Your task to perform on an android device: Clear the shopping cart on bestbuy. Image 0: 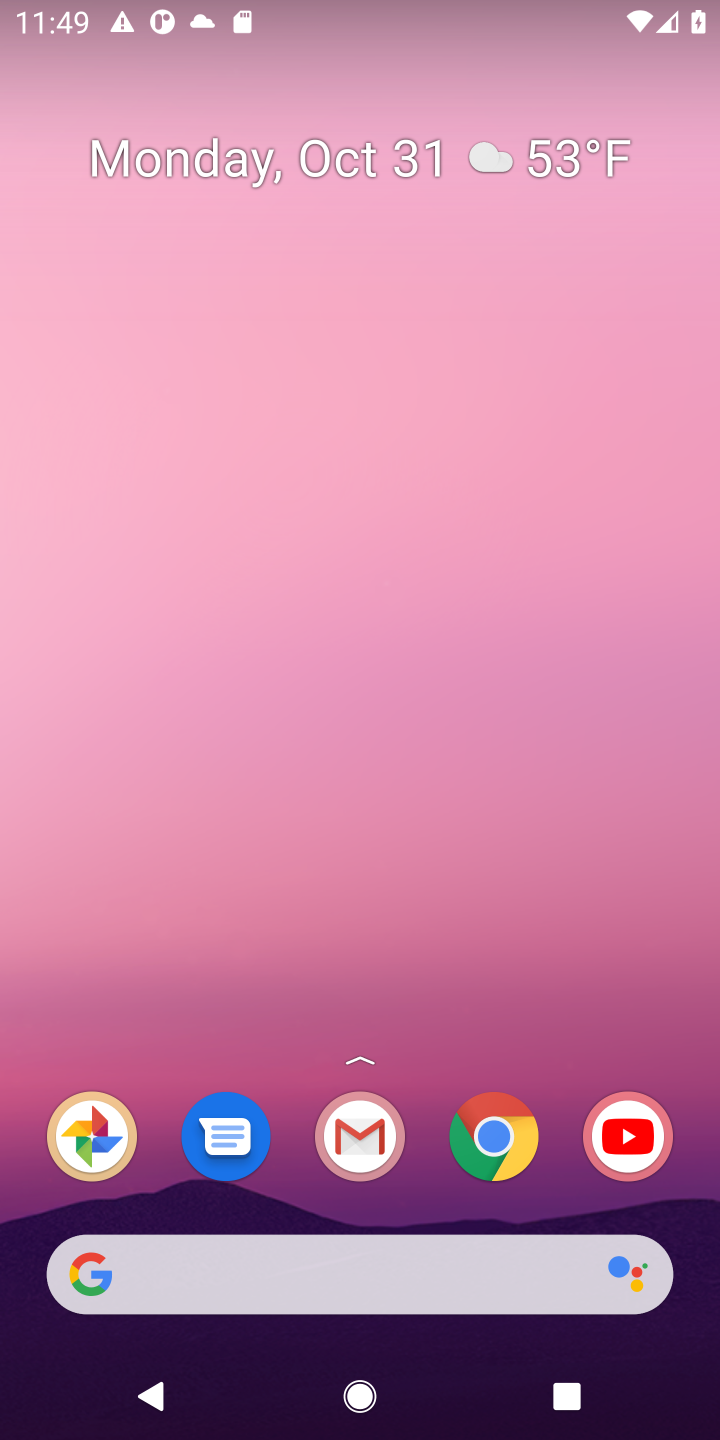
Step 0: press home button
Your task to perform on an android device: Clear the shopping cart on bestbuy. Image 1: 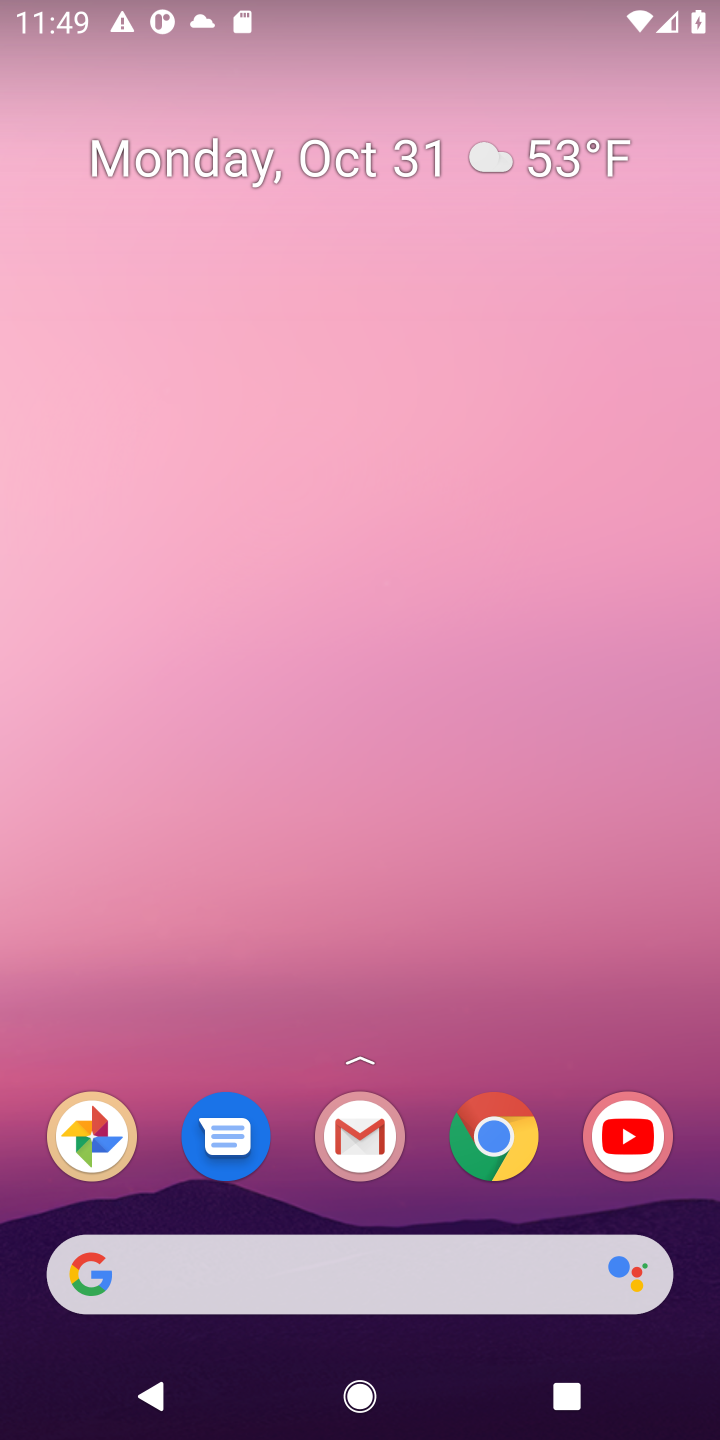
Step 1: click (128, 1264)
Your task to perform on an android device: Clear the shopping cart on bestbuy. Image 2: 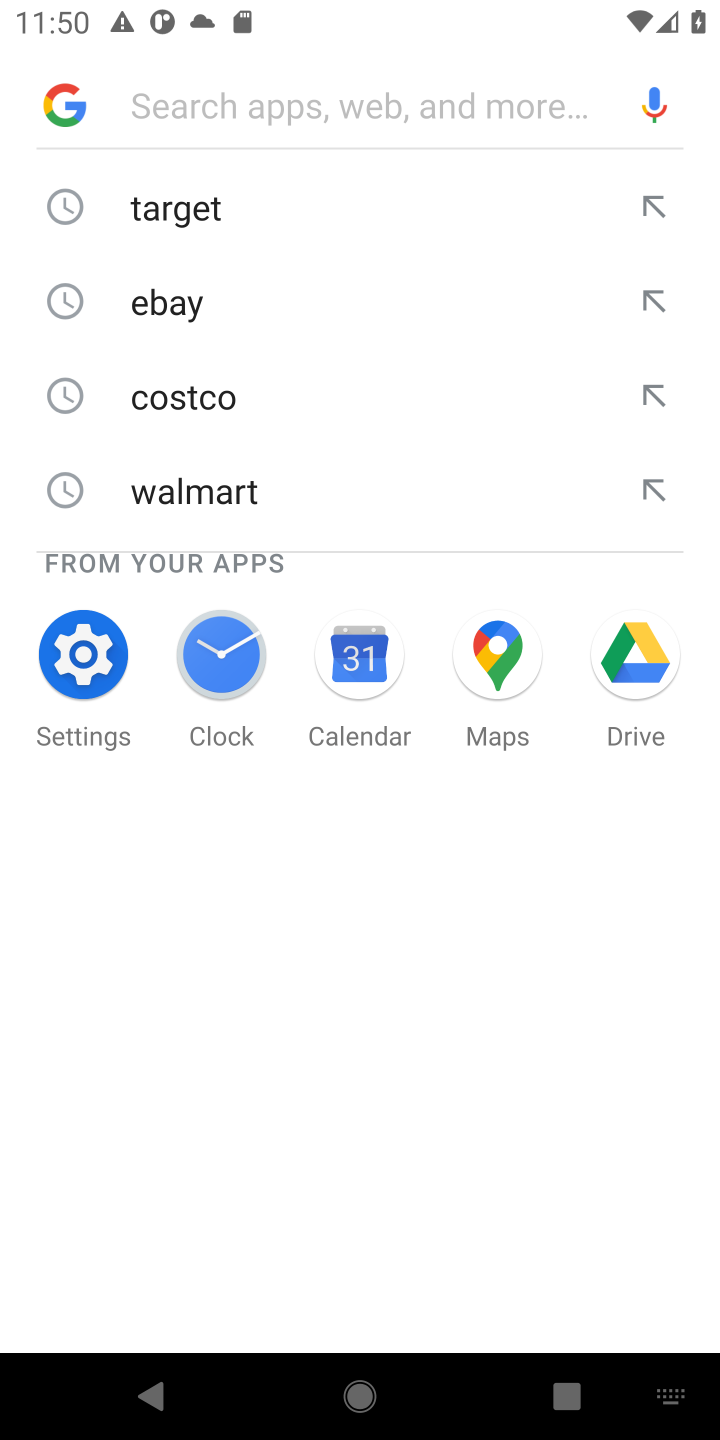
Step 2: type "bestbuy"
Your task to perform on an android device: Clear the shopping cart on bestbuy. Image 3: 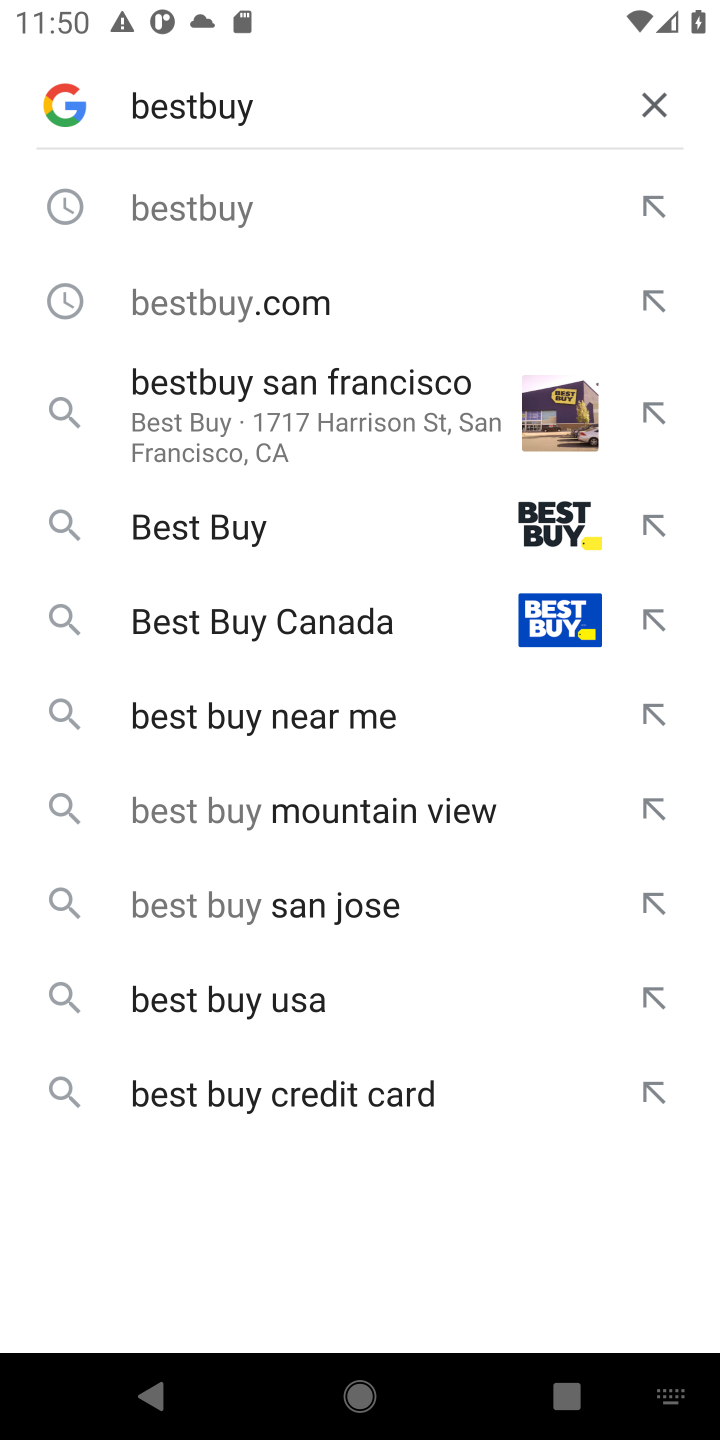
Step 3: press enter
Your task to perform on an android device: Clear the shopping cart on bestbuy. Image 4: 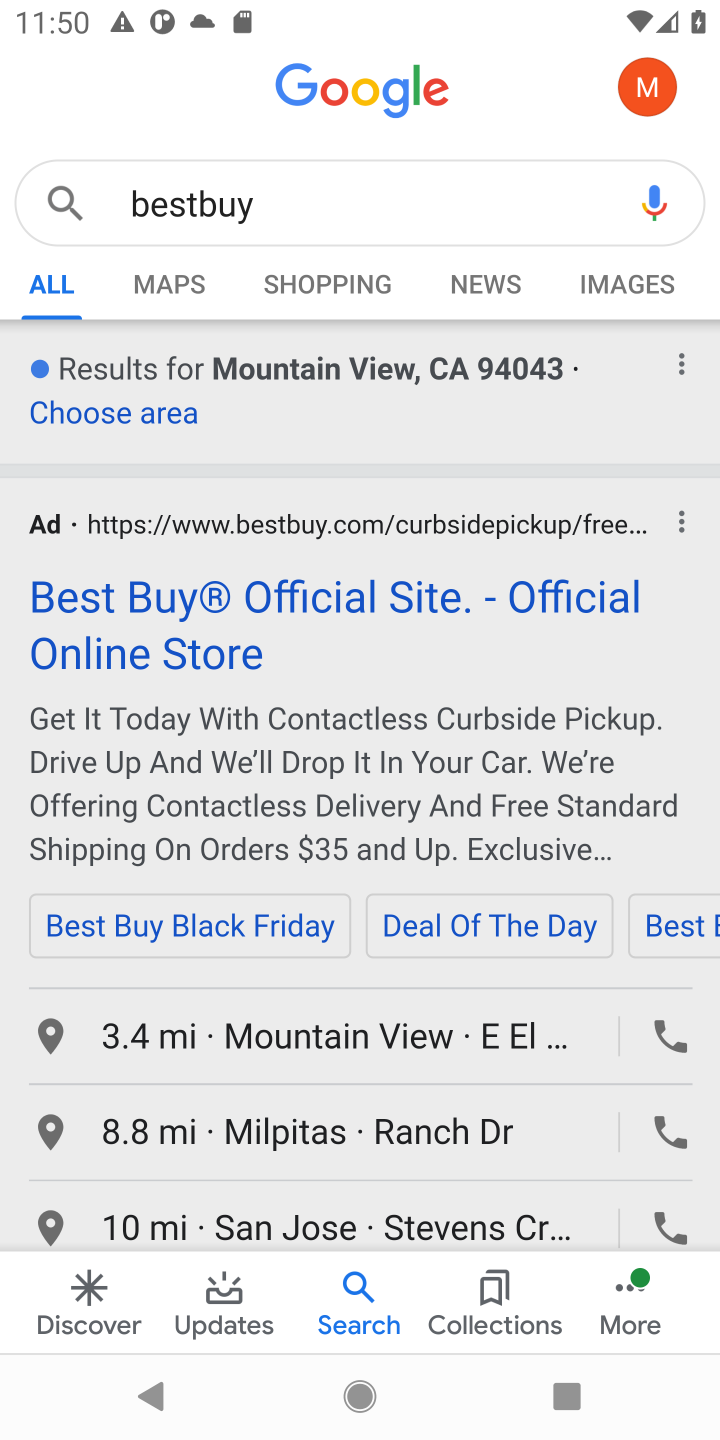
Step 4: drag from (302, 1052) to (322, 695)
Your task to perform on an android device: Clear the shopping cart on bestbuy. Image 5: 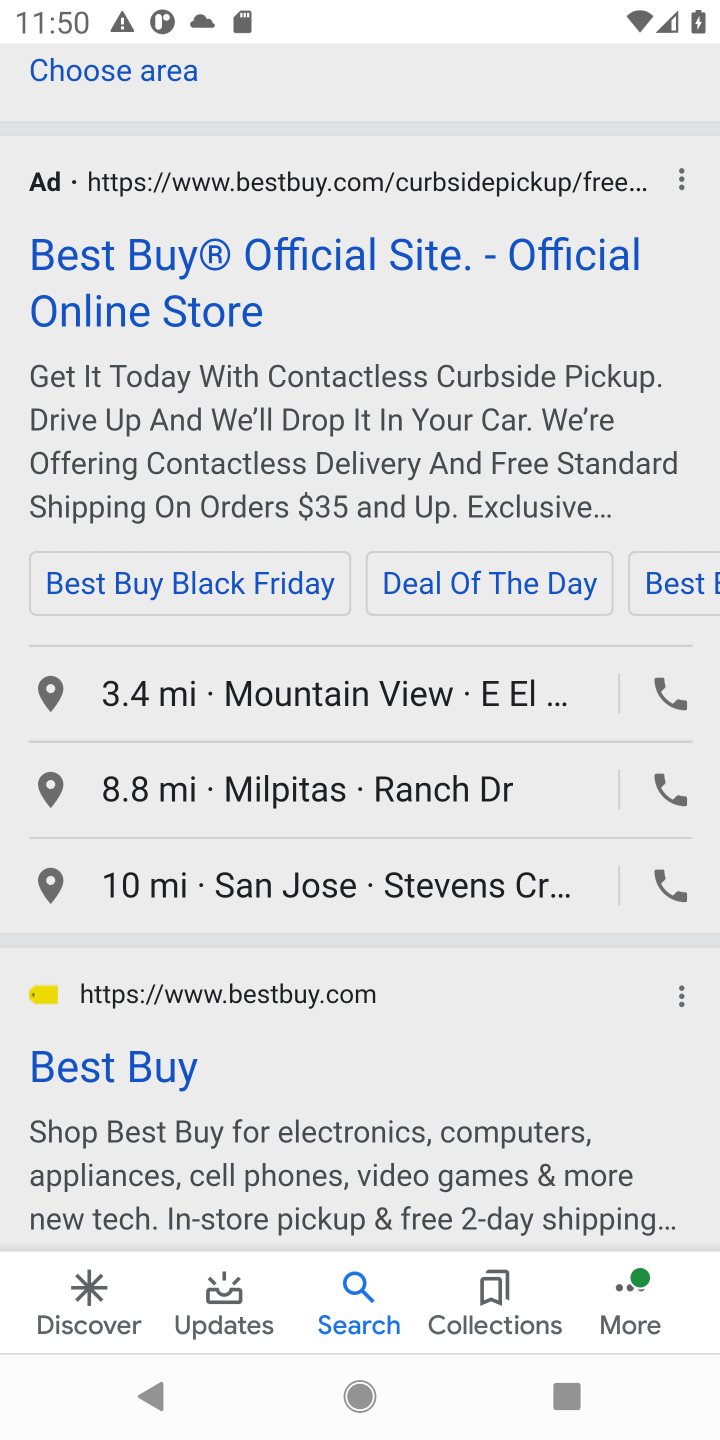
Step 5: click (200, 292)
Your task to perform on an android device: Clear the shopping cart on bestbuy. Image 6: 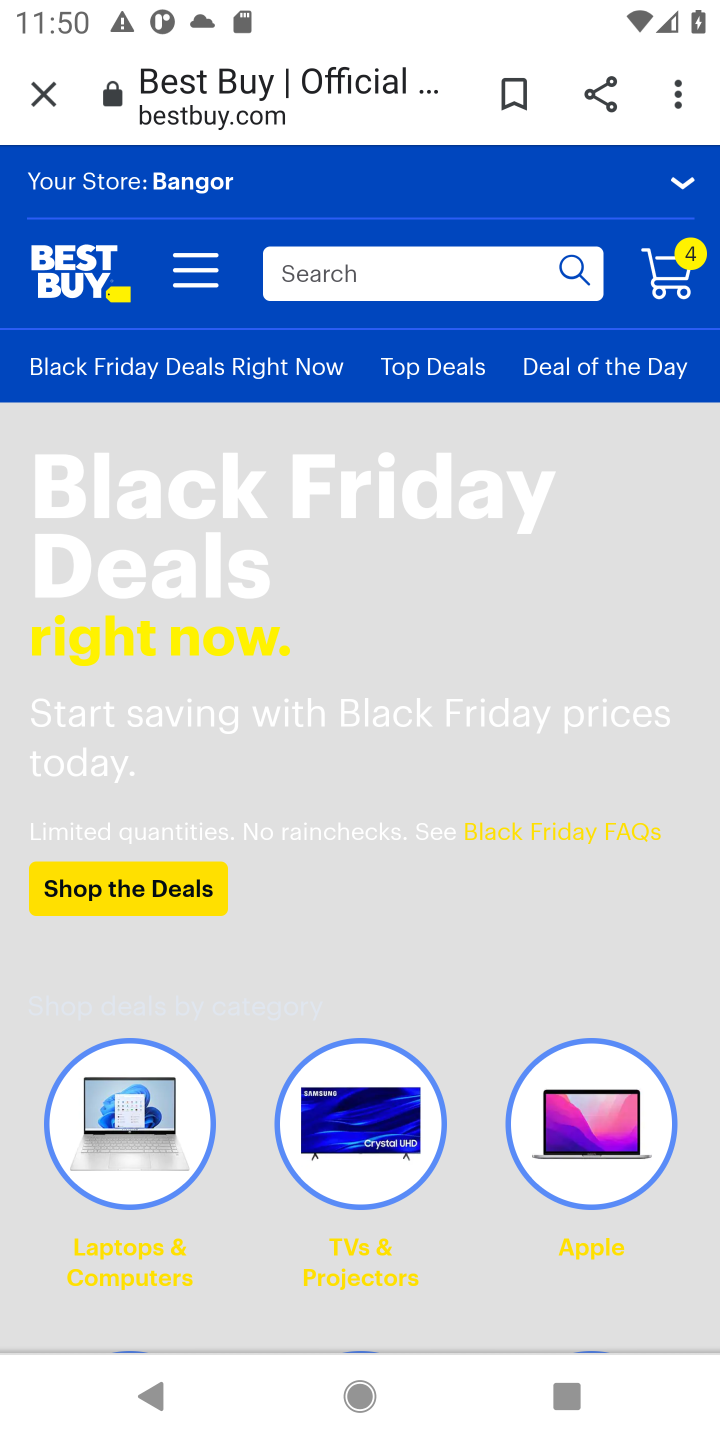
Step 6: click (665, 264)
Your task to perform on an android device: Clear the shopping cart on bestbuy. Image 7: 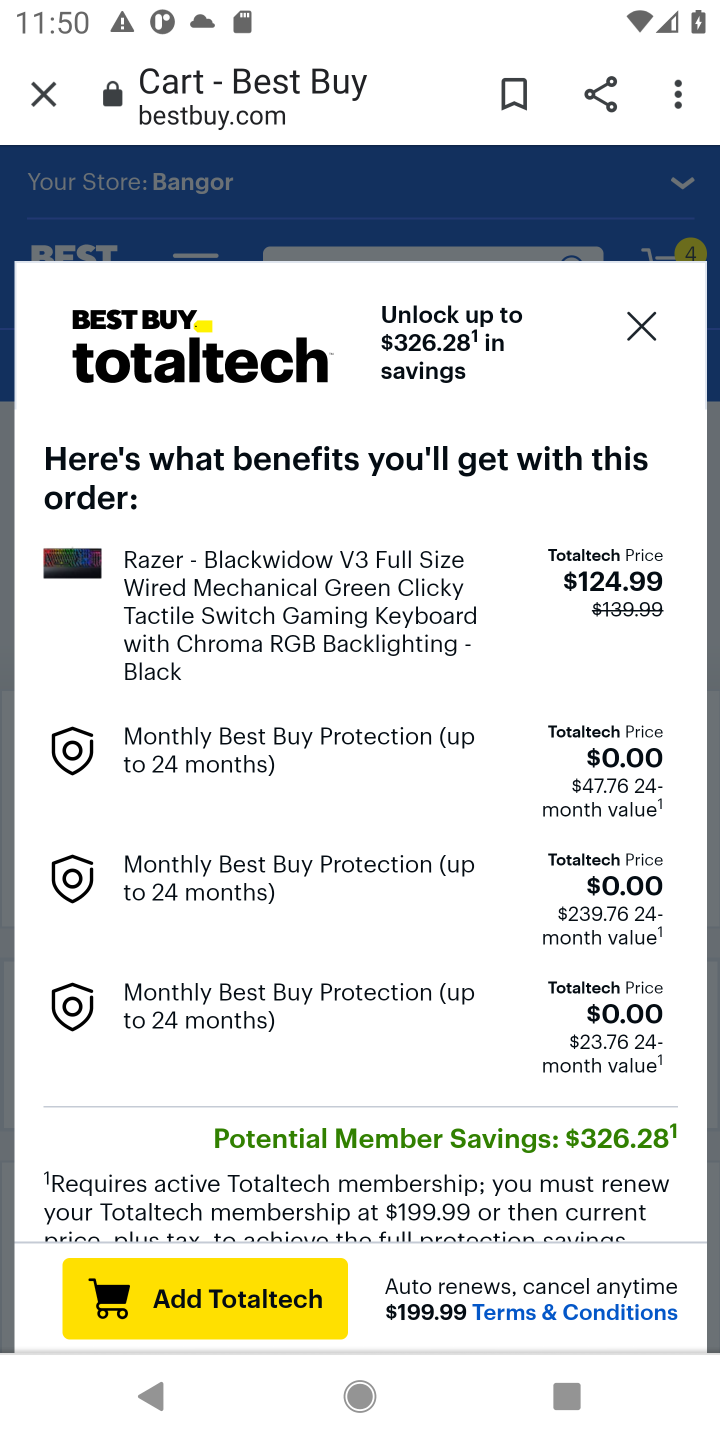
Step 7: click (647, 327)
Your task to perform on an android device: Clear the shopping cart on bestbuy. Image 8: 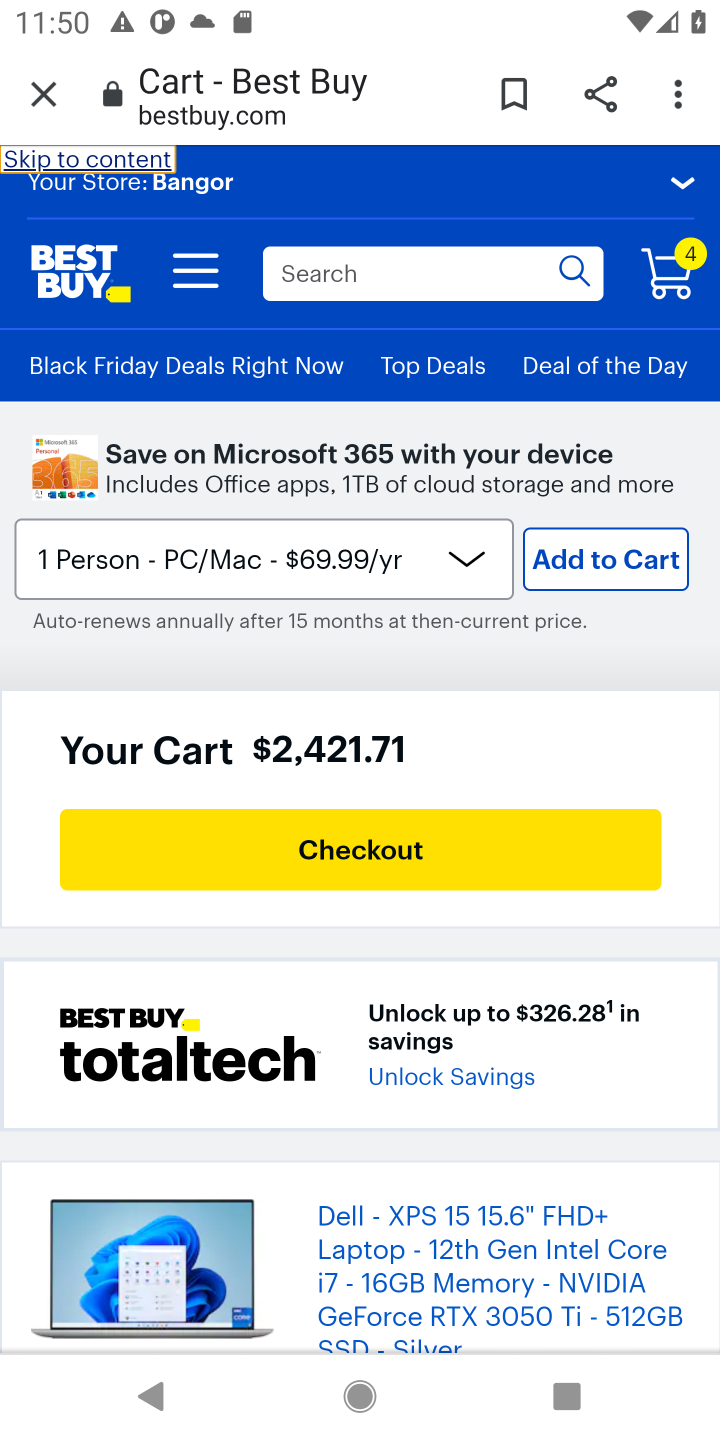
Step 8: drag from (413, 1087) to (483, 369)
Your task to perform on an android device: Clear the shopping cart on bestbuy. Image 9: 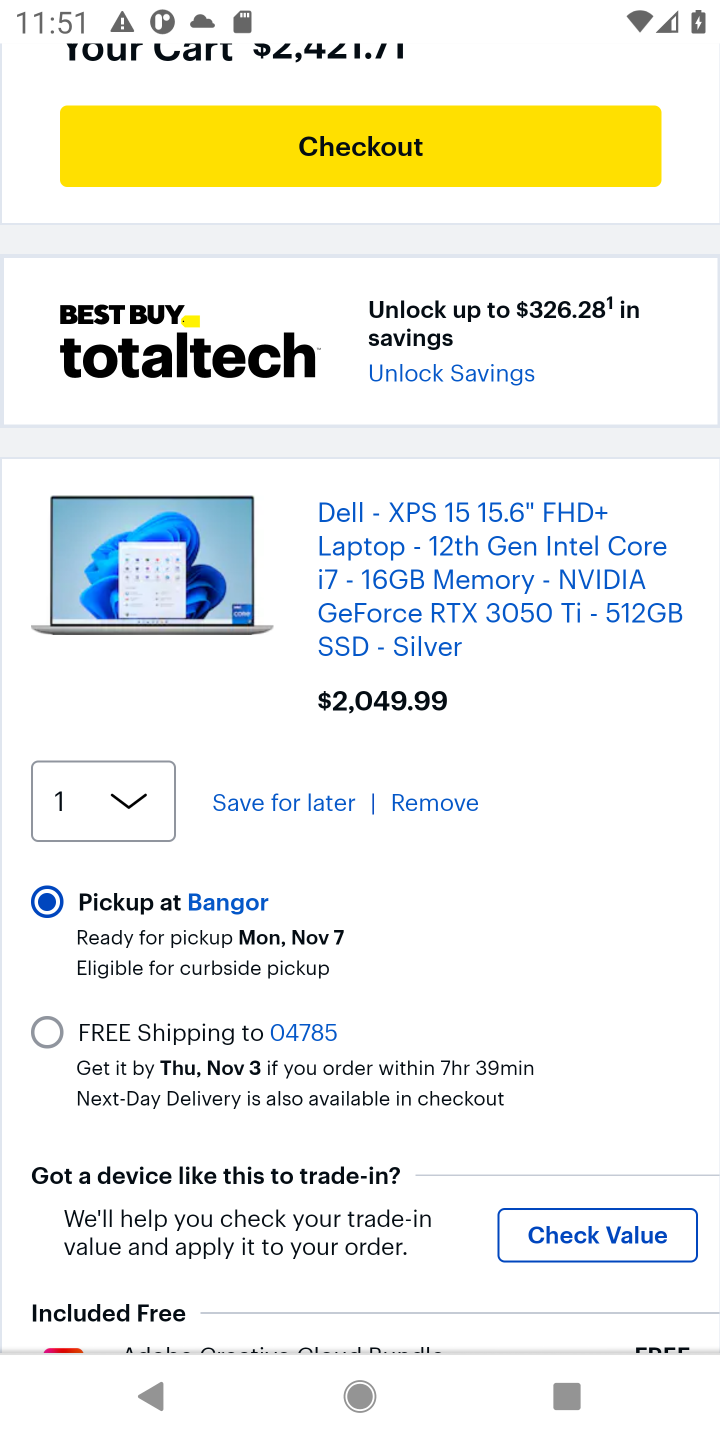
Step 9: click (433, 797)
Your task to perform on an android device: Clear the shopping cart on bestbuy. Image 10: 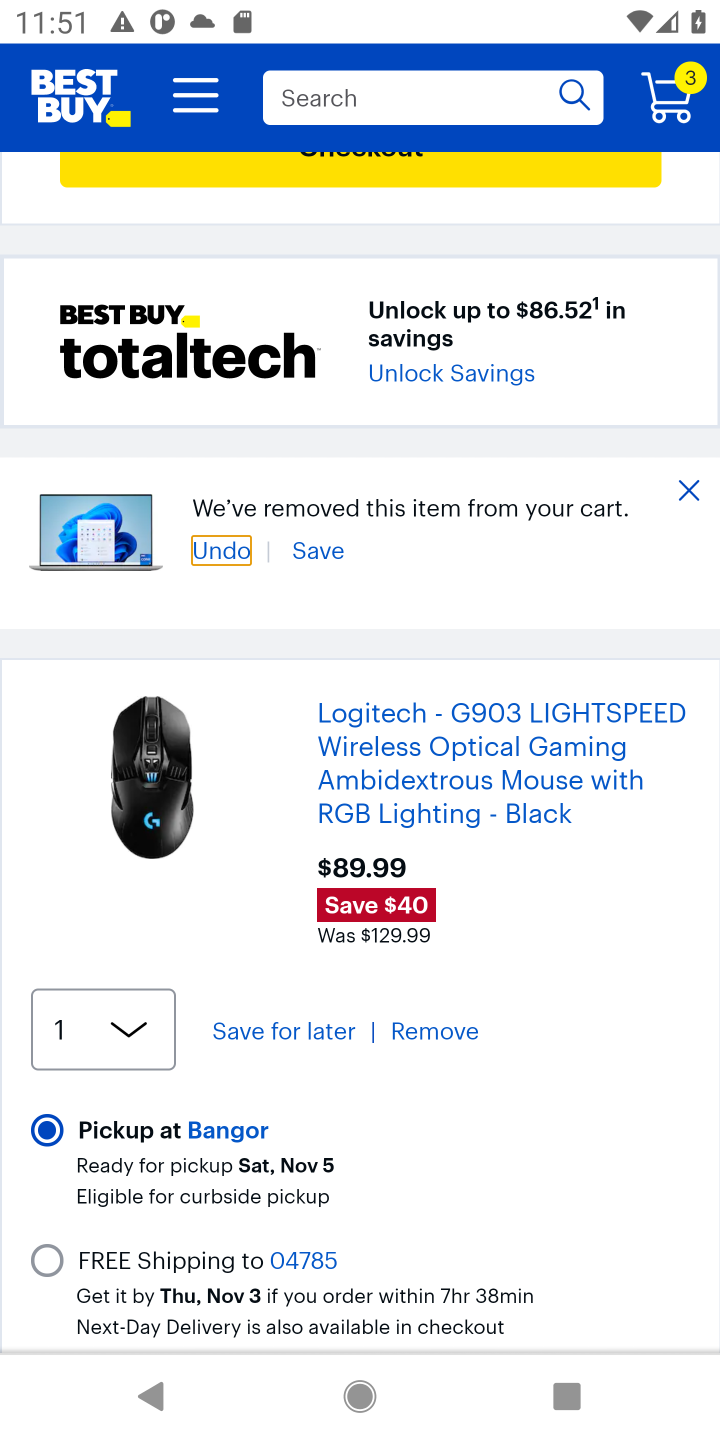
Step 10: click (423, 1036)
Your task to perform on an android device: Clear the shopping cart on bestbuy. Image 11: 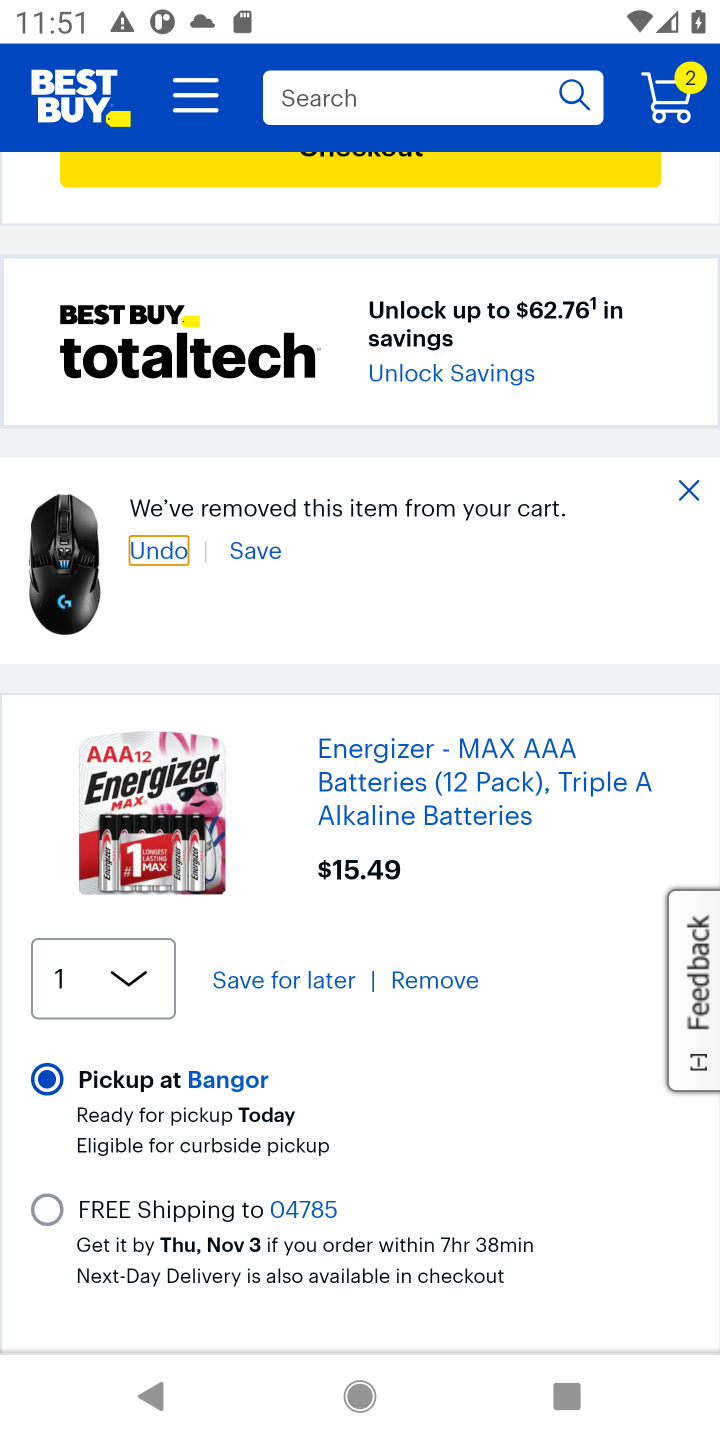
Step 11: click (436, 994)
Your task to perform on an android device: Clear the shopping cart on bestbuy. Image 12: 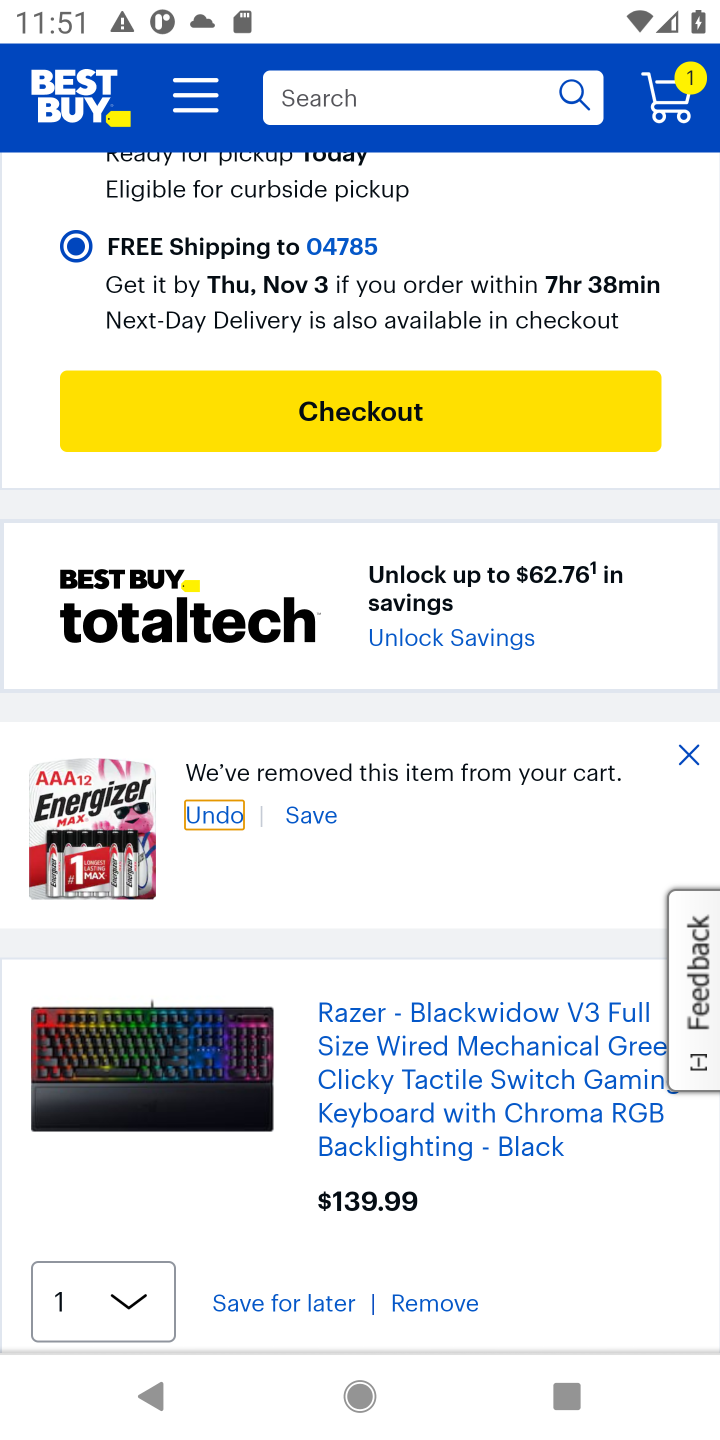
Step 12: click (434, 1305)
Your task to perform on an android device: Clear the shopping cart on bestbuy. Image 13: 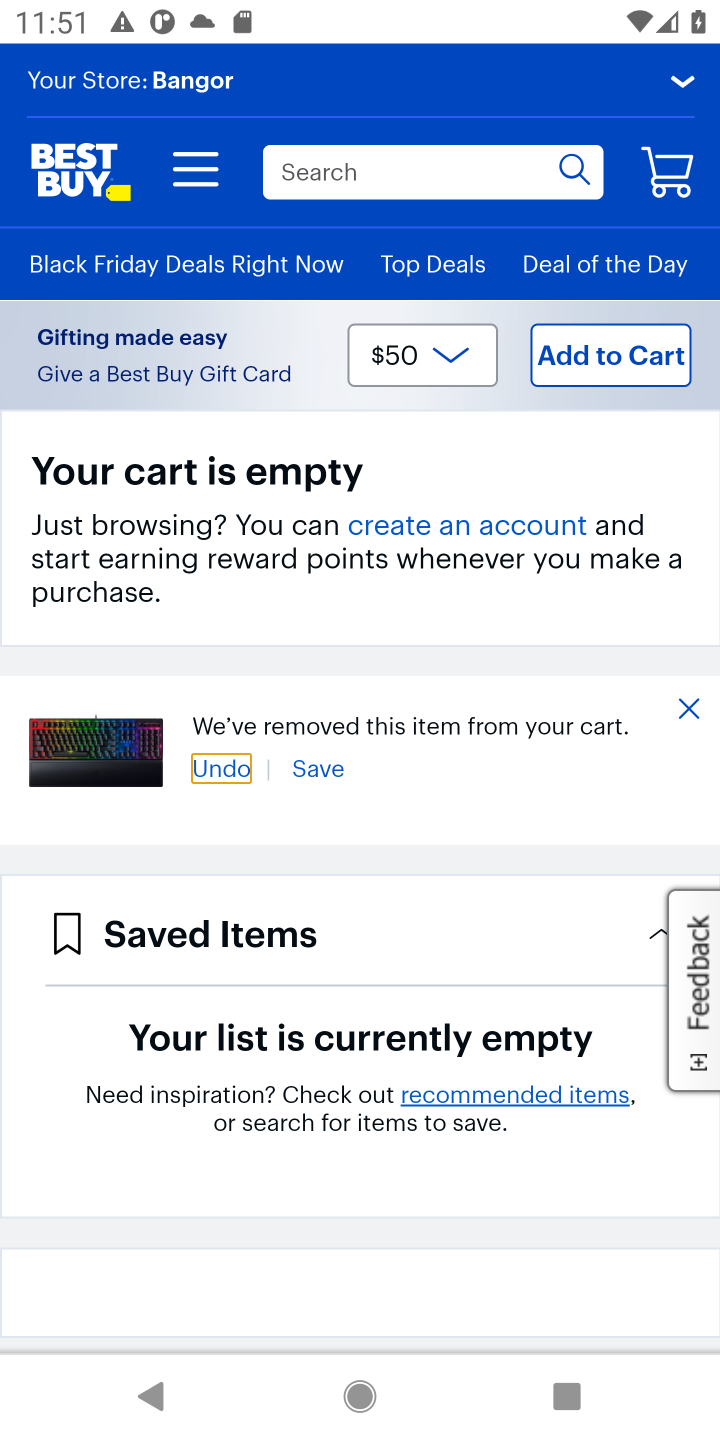
Step 13: task complete